Your task to perform on an android device: choose inbox layout in the gmail app Image 0: 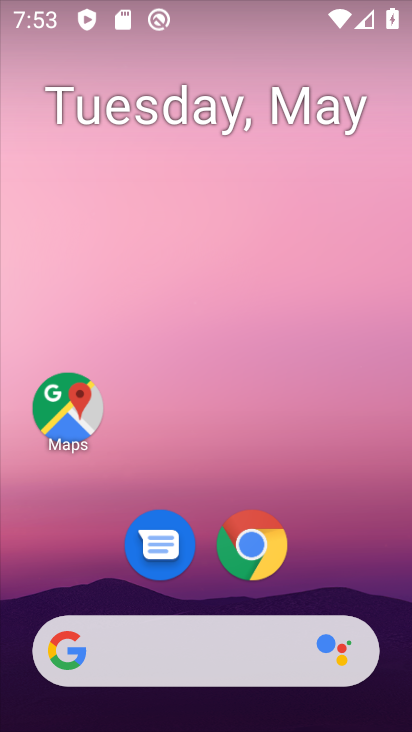
Step 0: drag from (205, 585) to (219, 274)
Your task to perform on an android device: choose inbox layout in the gmail app Image 1: 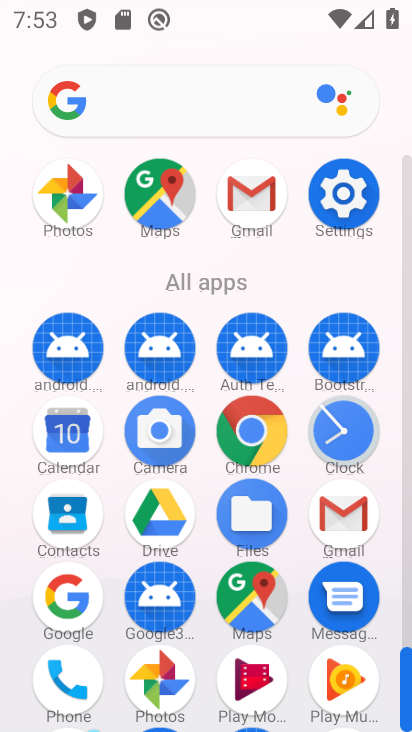
Step 1: click (249, 233)
Your task to perform on an android device: choose inbox layout in the gmail app Image 2: 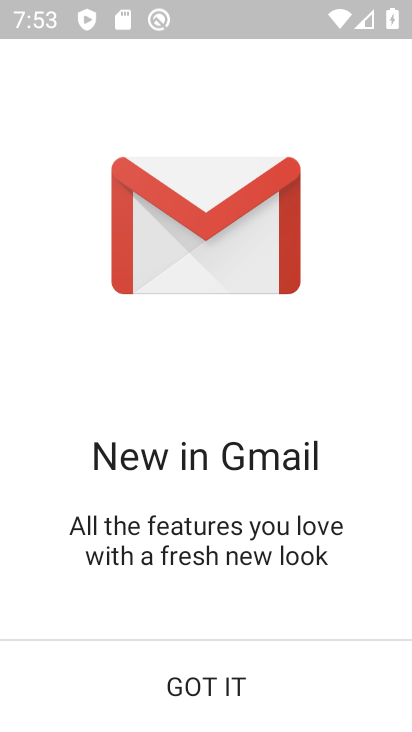
Step 2: click (222, 654)
Your task to perform on an android device: choose inbox layout in the gmail app Image 3: 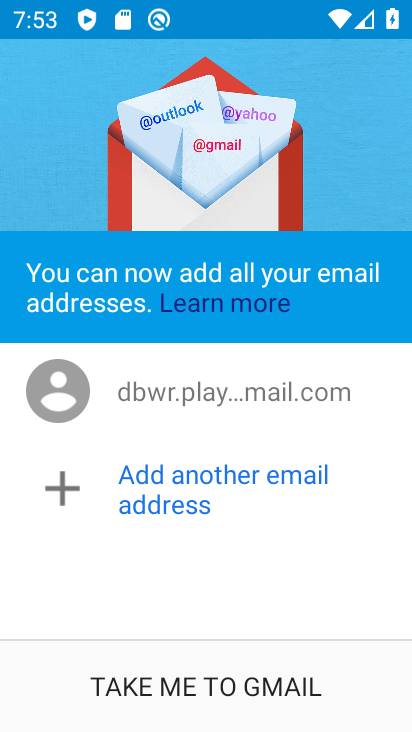
Step 3: click (210, 665)
Your task to perform on an android device: choose inbox layout in the gmail app Image 4: 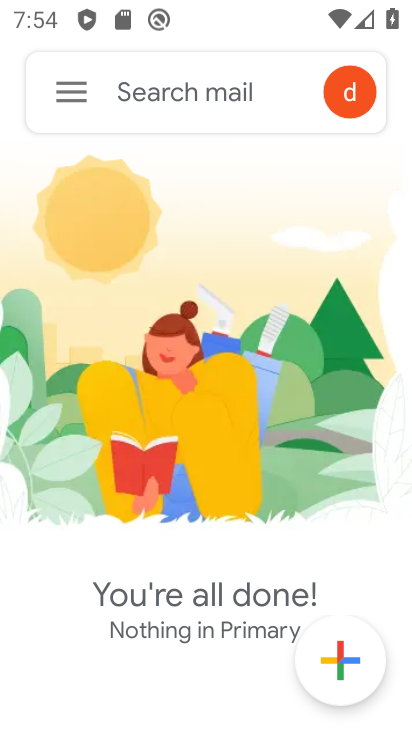
Step 4: click (62, 91)
Your task to perform on an android device: choose inbox layout in the gmail app Image 5: 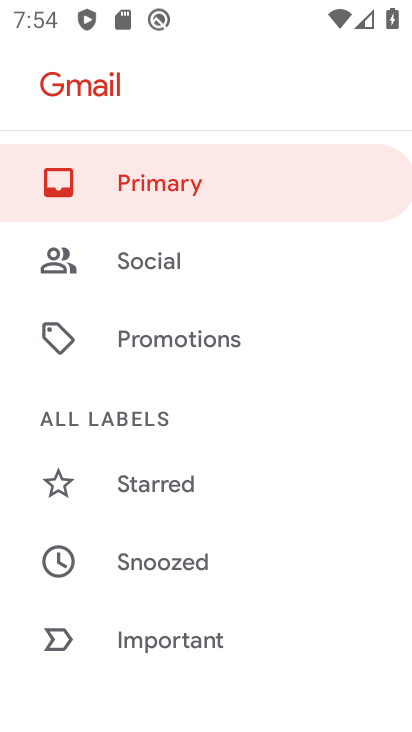
Step 5: drag from (214, 636) to (222, 271)
Your task to perform on an android device: choose inbox layout in the gmail app Image 6: 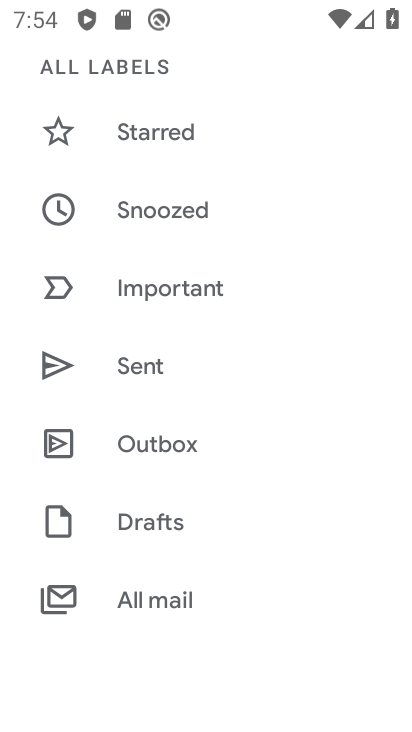
Step 6: drag from (198, 598) to (206, 249)
Your task to perform on an android device: choose inbox layout in the gmail app Image 7: 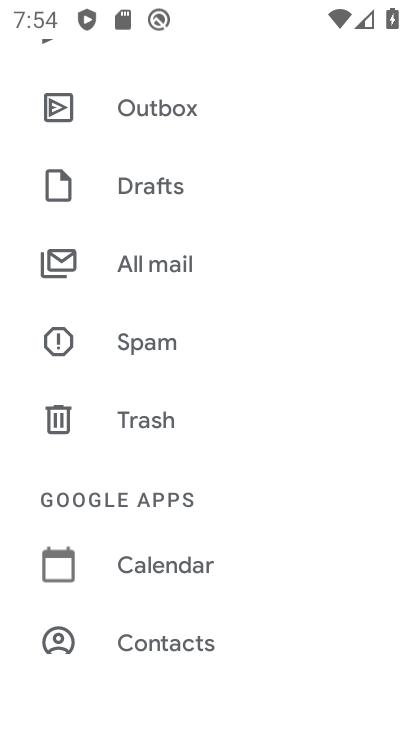
Step 7: drag from (163, 585) to (189, 349)
Your task to perform on an android device: choose inbox layout in the gmail app Image 8: 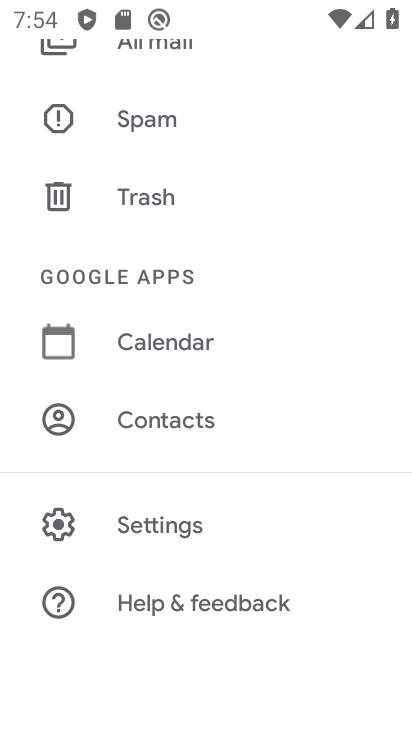
Step 8: click (181, 530)
Your task to perform on an android device: choose inbox layout in the gmail app Image 9: 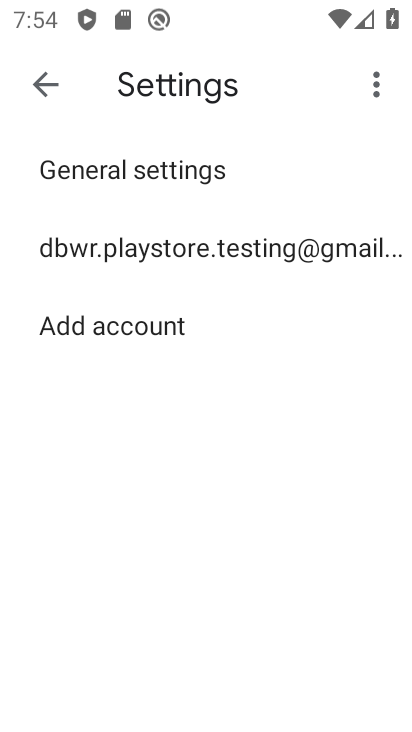
Step 9: click (172, 261)
Your task to perform on an android device: choose inbox layout in the gmail app Image 10: 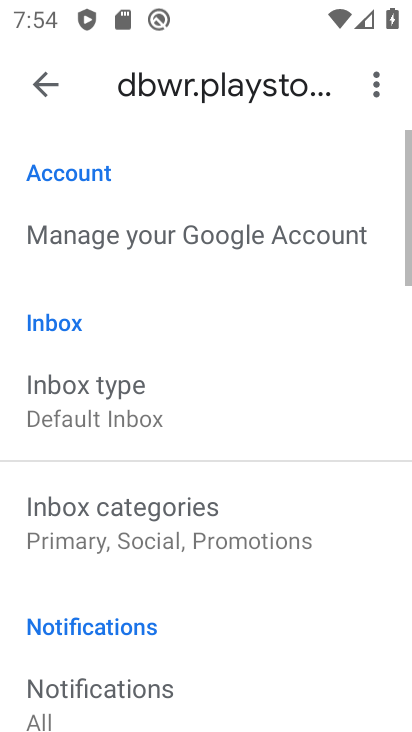
Step 10: drag from (195, 617) to (199, 462)
Your task to perform on an android device: choose inbox layout in the gmail app Image 11: 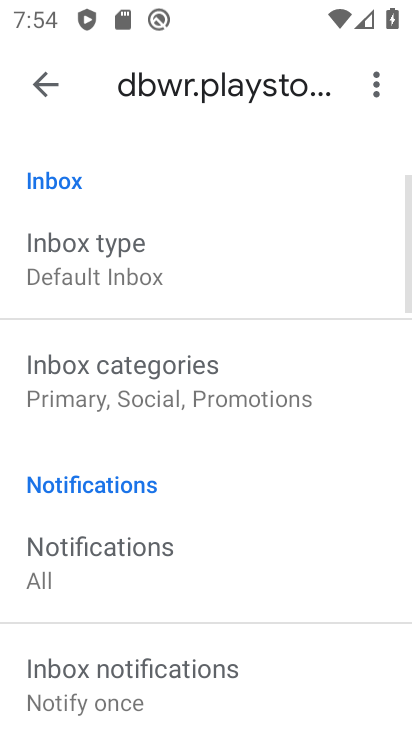
Step 11: click (154, 263)
Your task to perform on an android device: choose inbox layout in the gmail app Image 12: 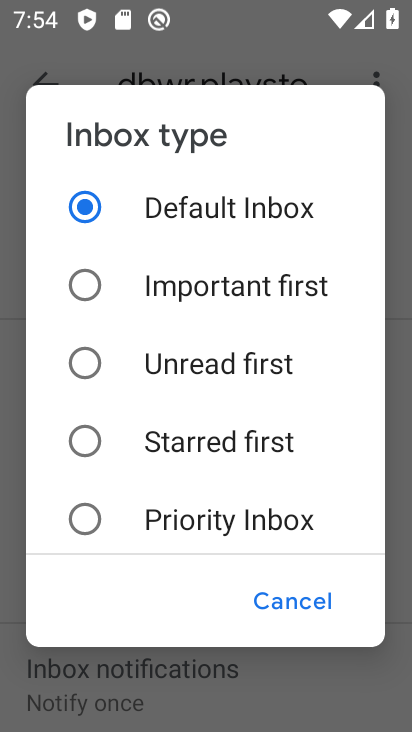
Step 12: click (146, 505)
Your task to perform on an android device: choose inbox layout in the gmail app Image 13: 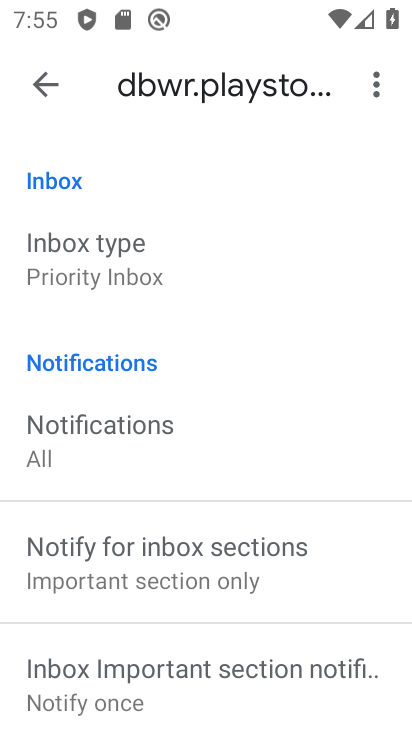
Step 13: task complete